Your task to perform on an android device: Go to Yahoo.com Image 0: 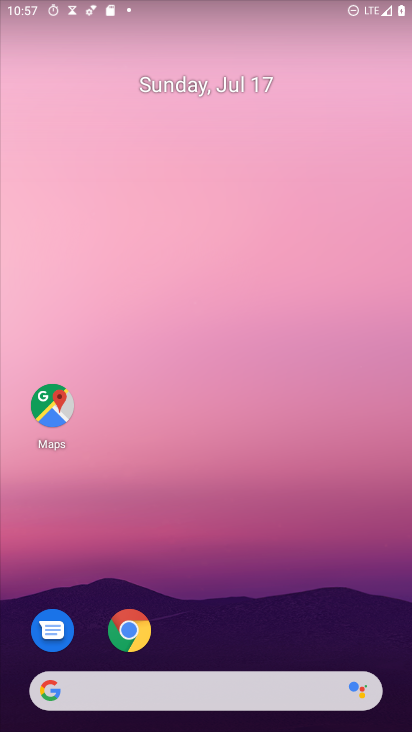
Step 0: drag from (339, 475) to (301, 97)
Your task to perform on an android device: Go to Yahoo.com Image 1: 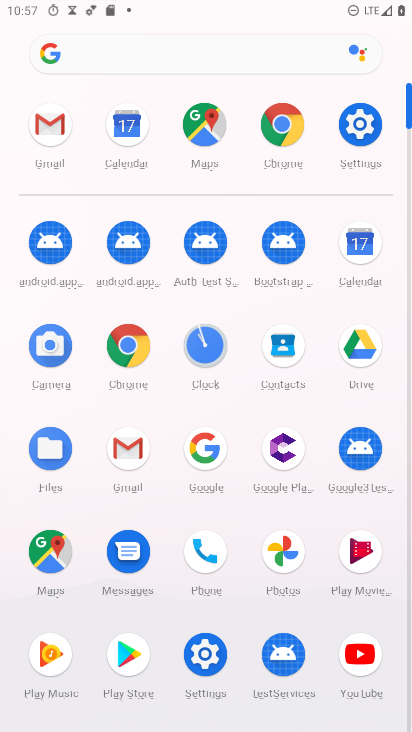
Step 1: click (126, 346)
Your task to perform on an android device: Go to Yahoo.com Image 2: 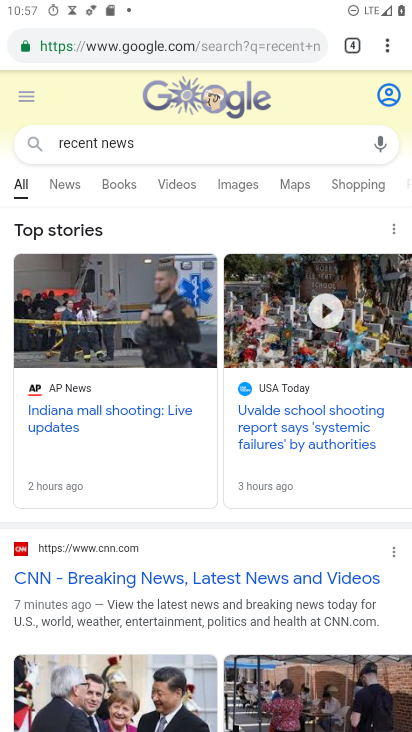
Step 2: click (234, 52)
Your task to perform on an android device: Go to Yahoo.com Image 3: 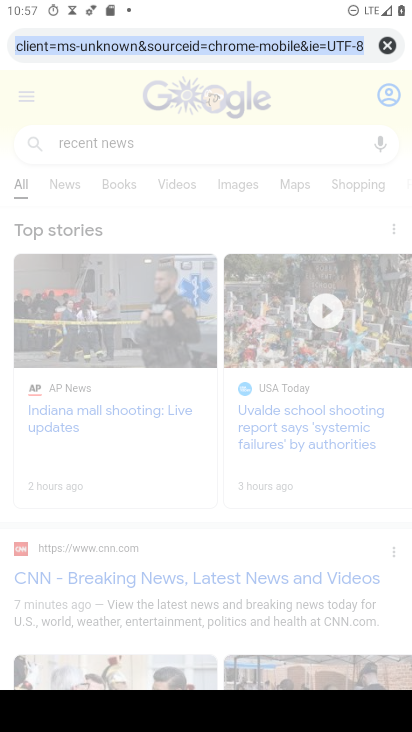
Step 3: type "yahoo.com"
Your task to perform on an android device: Go to Yahoo.com Image 4: 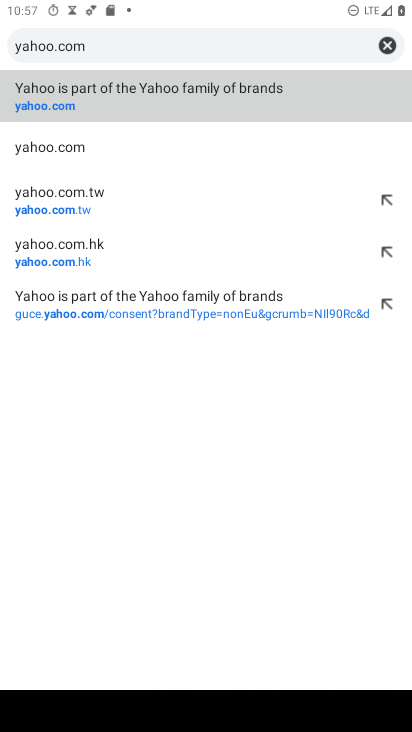
Step 4: click (203, 98)
Your task to perform on an android device: Go to Yahoo.com Image 5: 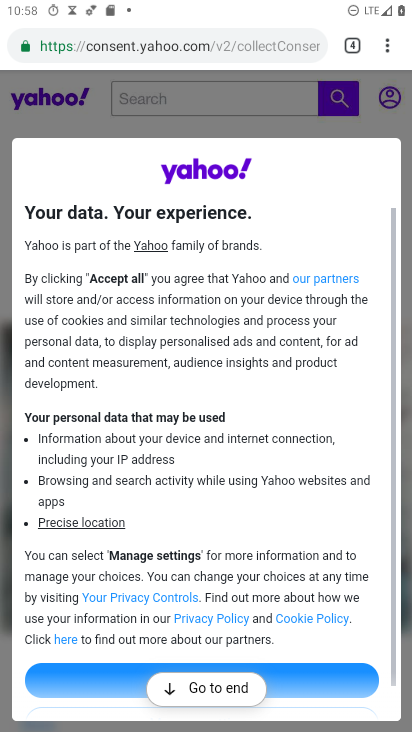
Step 5: task complete